Your task to perform on an android device: open wifi settings Image 0: 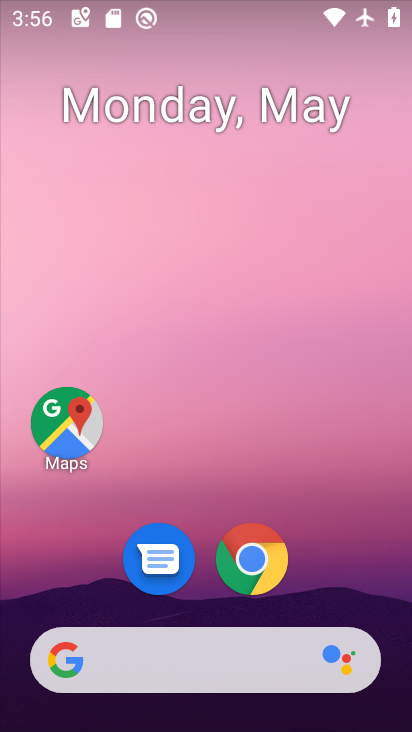
Step 0: drag from (294, 622) to (260, 0)
Your task to perform on an android device: open wifi settings Image 1: 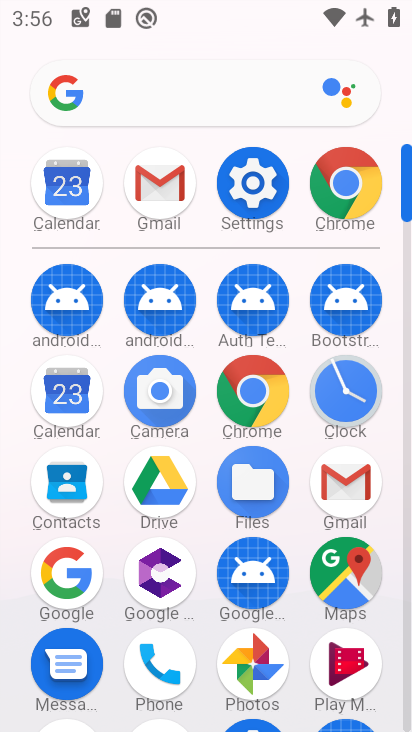
Step 1: click (252, 193)
Your task to perform on an android device: open wifi settings Image 2: 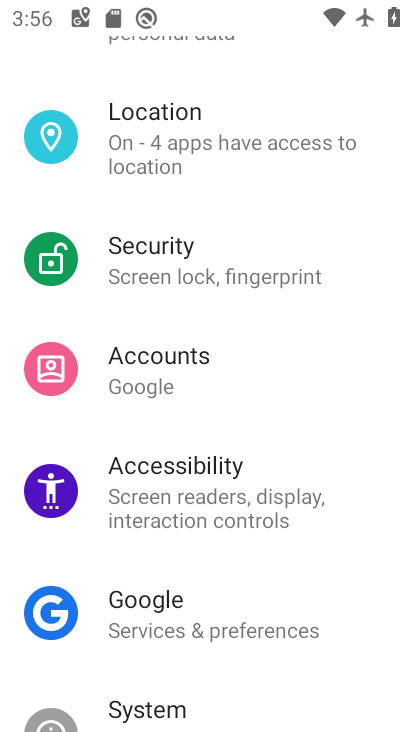
Step 2: drag from (172, 188) to (175, 654)
Your task to perform on an android device: open wifi settings Image 3: 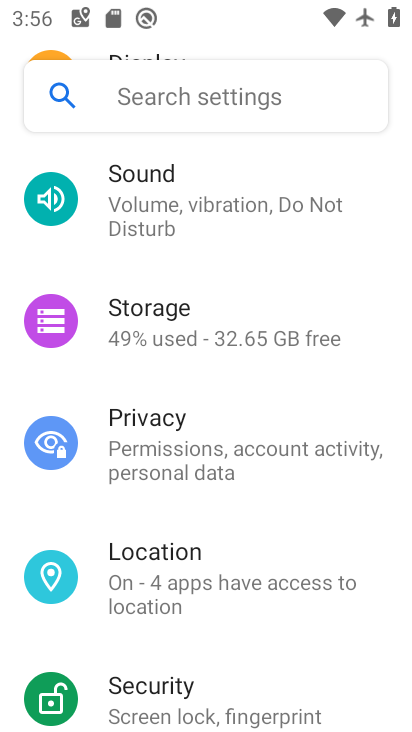
Step 3: drag from (215, 341) to (215, 624)
Your task to perform on an android device: open wifi settings Image 4: 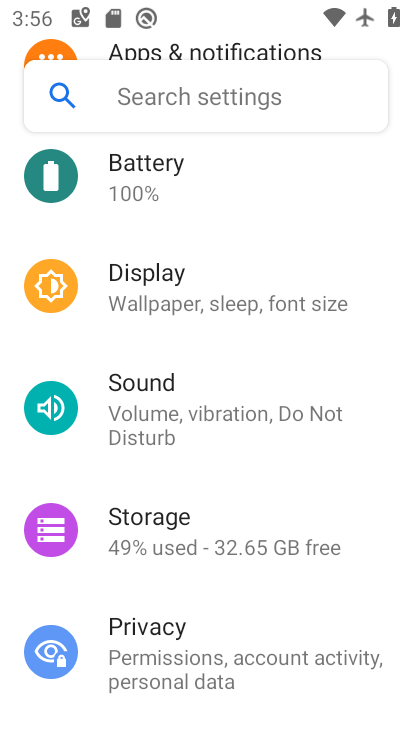
Step 4: drag from (191, 250) to (190, 564)
Your task to perform on an android device: open wifi settings Image 5: 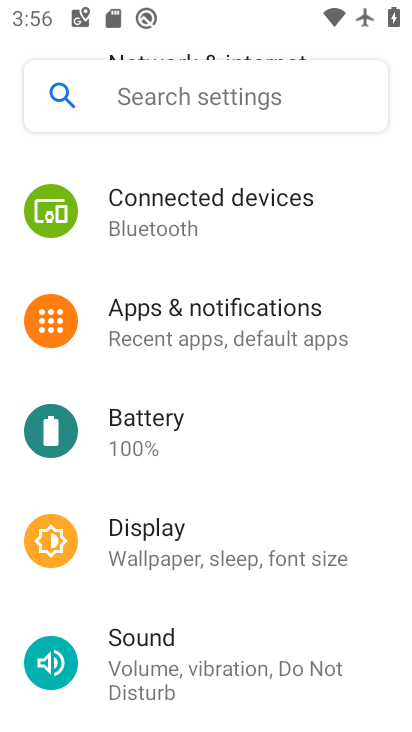
Step 5: drag from (158, 209) to (156, 538)
Your task to perform on an android device: open wifi settings Image 6: 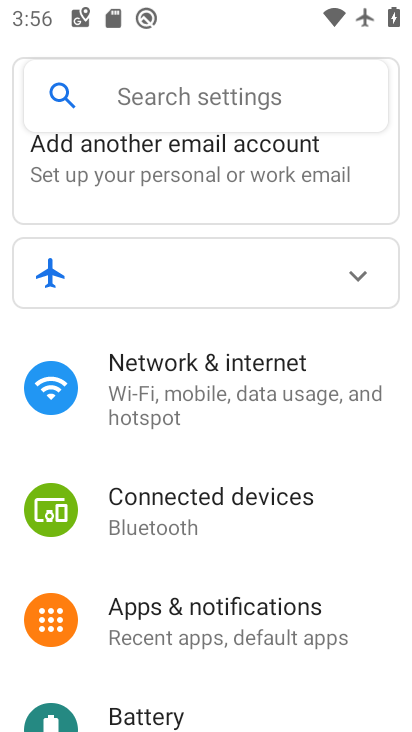
Step 6: click (168, 409)
Your task to perform on an android device: open wifi settings Image 7: 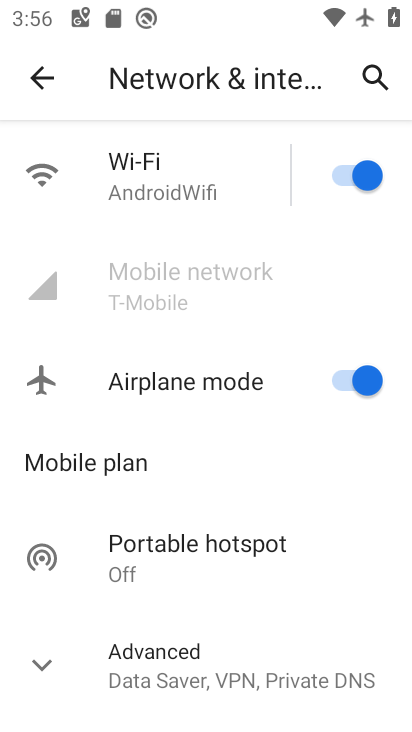
Step 7: click (167, 173)
Your task to perform on an android device: open wifi settings Image 8: 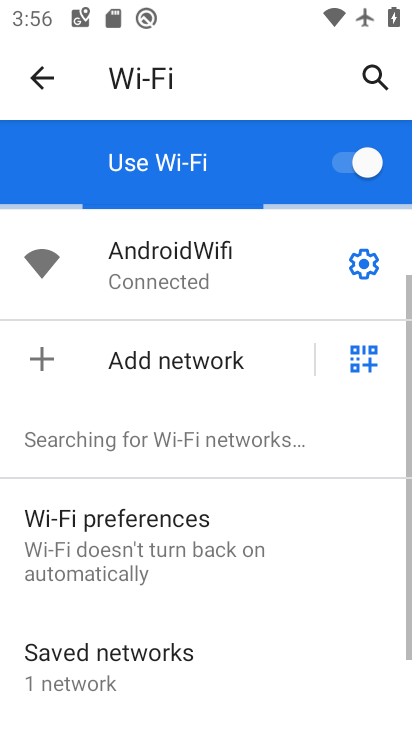
Step 8: task complete